Your task to perform on an android device: Go to ESPN.com Image 0: 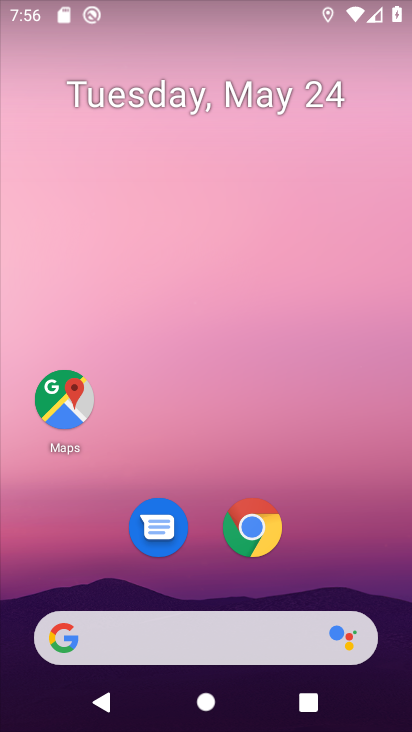
Step 0: click (244, 524)
Your task to perform on an android device: Go to ESPN.com Image 1: 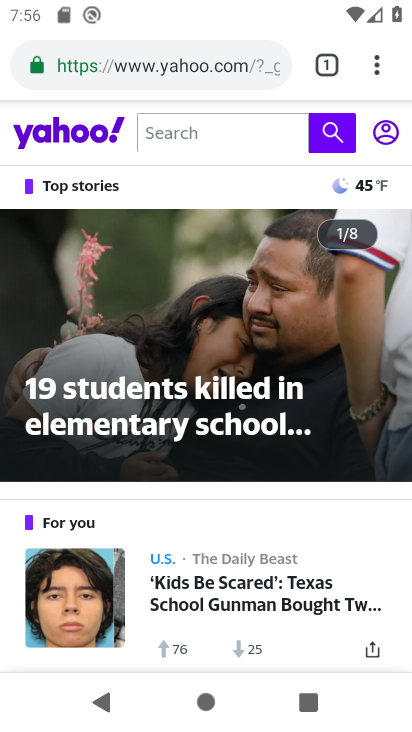
Step 1: drag from (314, 439) to (18, 417)
Your task to perform on an android device: Go to ESPN.com Image 2: 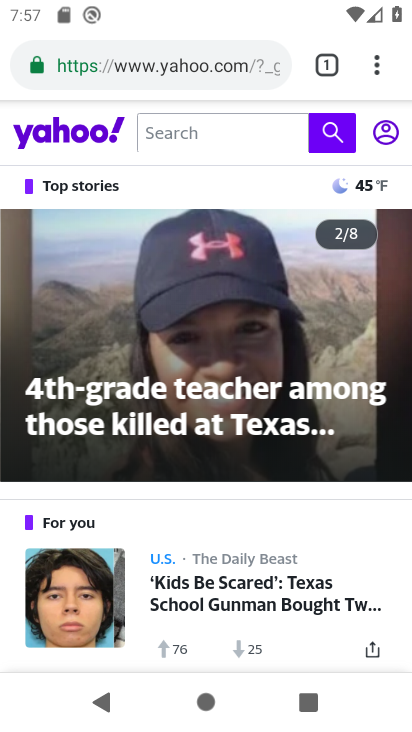
Step 2: drag from (316, 323) to (116, 307)
Your task to perform on an android device: Go to ESPN.com Image 3: 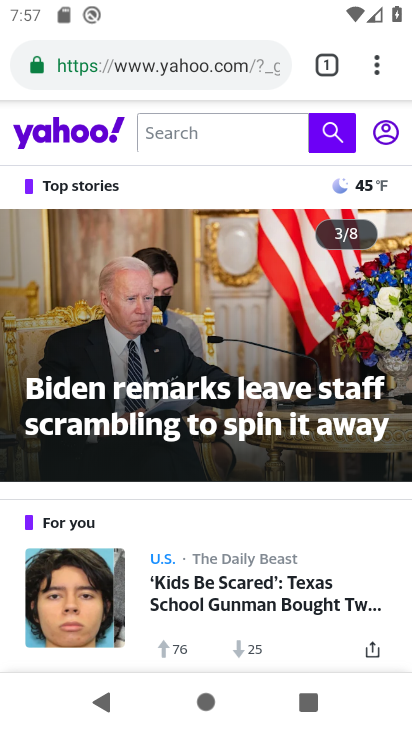
Step 3: drag from (325, 322) to (97, 332)
Your task to perform on an android device: Go to ESPN.com Image 4: 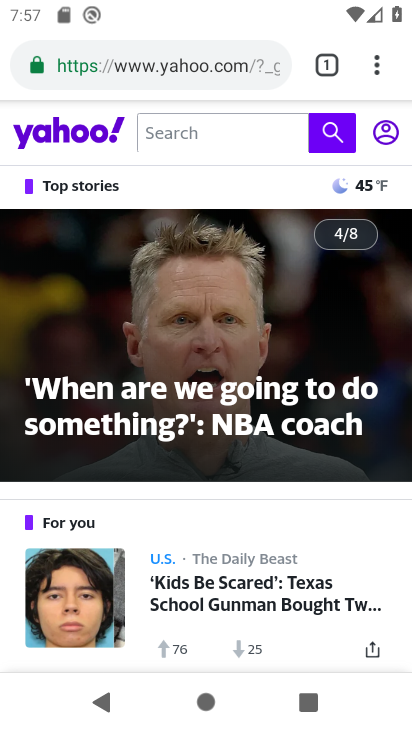
Step 4: drag from (311, 323) to (91, 325)
Your task to perform on an android device: Go to ESPN.com Image 5: 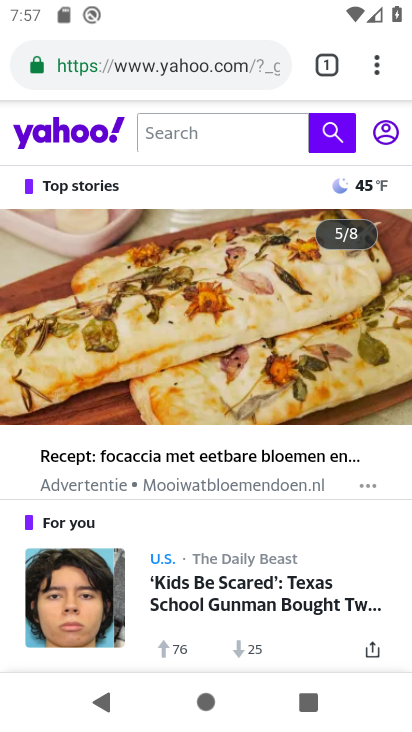
Step 5: click (380, 67)
Your task to perform on an android device: Go to ESPN.com Image 6: 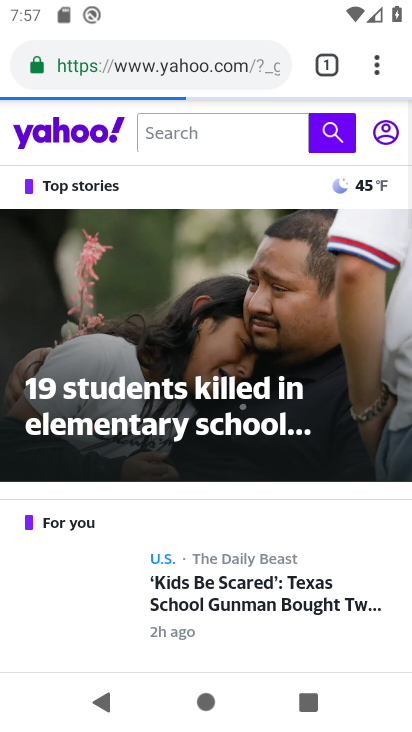
Step 6: drag from (364, 333) to (269, 315)
Your task to perform on an android device: Go to ESPN.com Image 7: 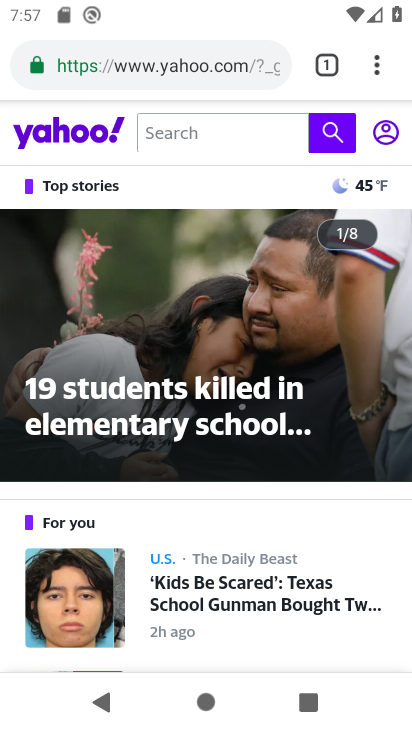
Step 7: drag from (381, 68) to (49, 63)
Your task to perform on an android device: Go to ESPN.com Image 8: 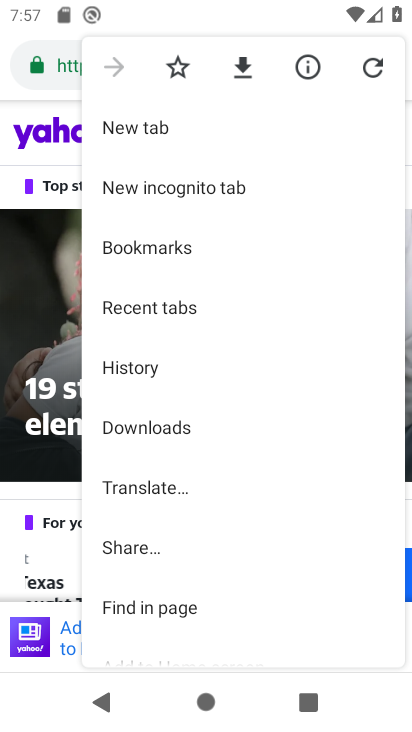
Step 8: click (49, 63)
Your task to perform on an android device: Go to ESPN.com Image 9: 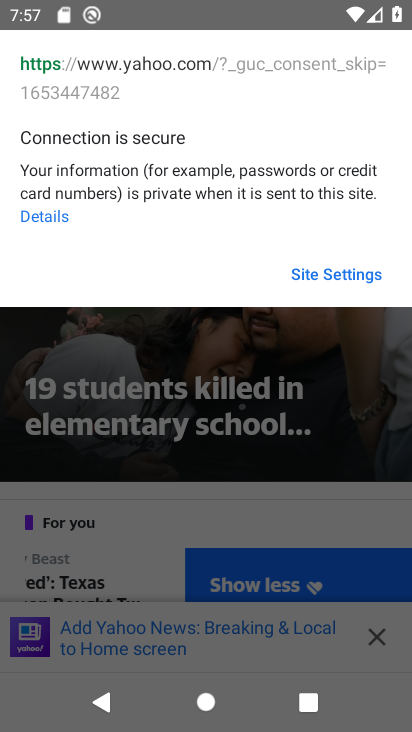
Step 9: click (133, 67)
Your task to perform on an android device: Go to ESPN.com Image 10: 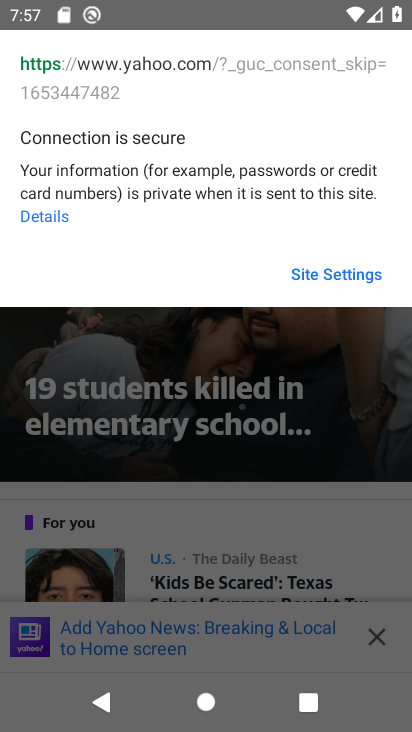
Step 10: click (216, 64)
Your task to perform on an android device: Go to ESPN.com Image 11: 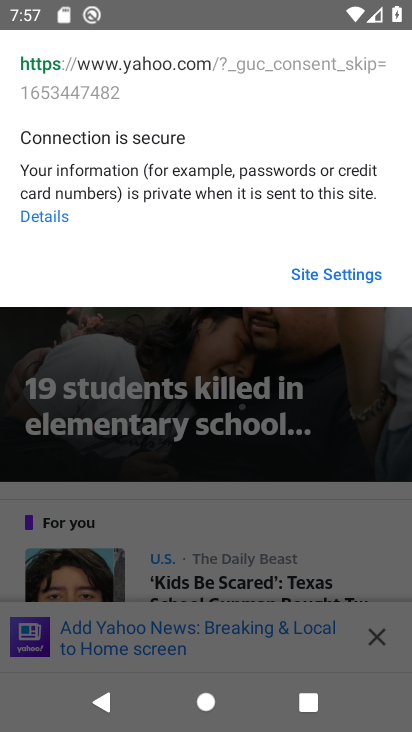
Step 11: click (272, 502)
Your task to perform on an android device: Go to ESPN.com Image 12: 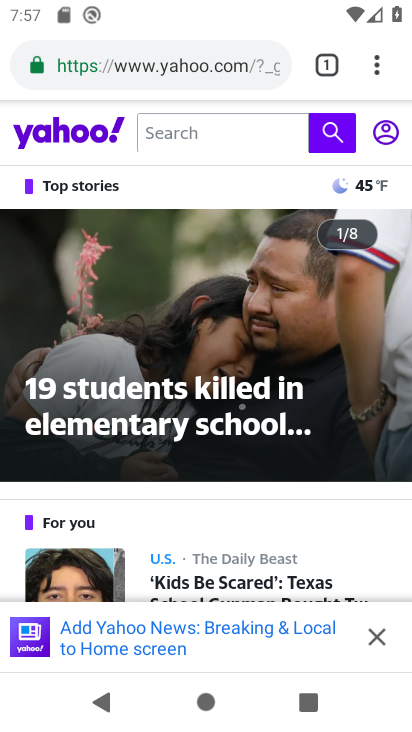
Step 12: click (229, 71)
Your task to perform on an android device: Go to ESPN.com Image 13: 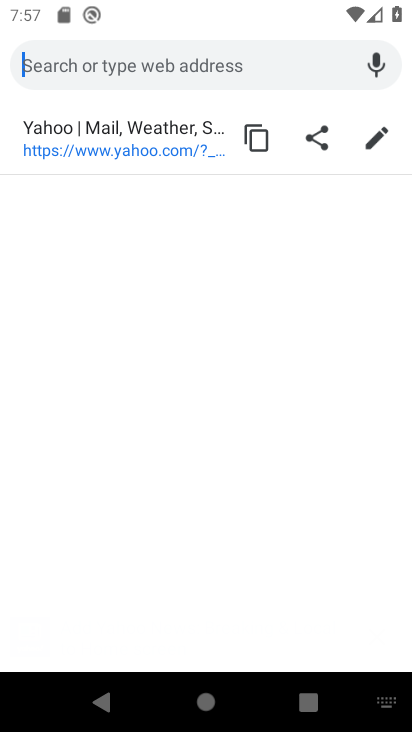
Step 13: type "espn.com"
Your task to perform on an android device: Go to ESPN.com Image 14: 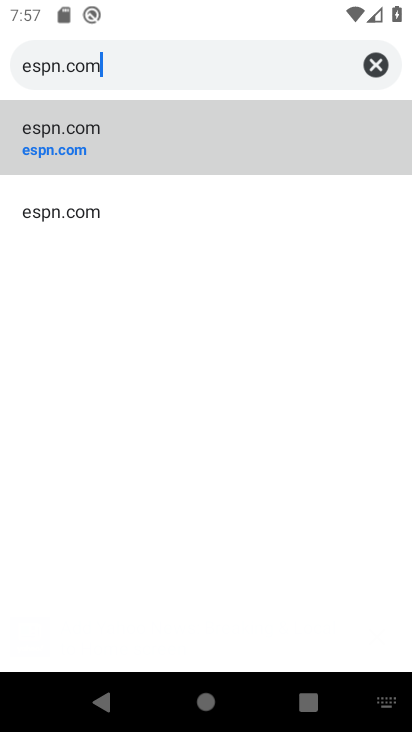
Step 14: click (29, 154)
Your task to perform on an android device: Go to ESPN.com Image 15: 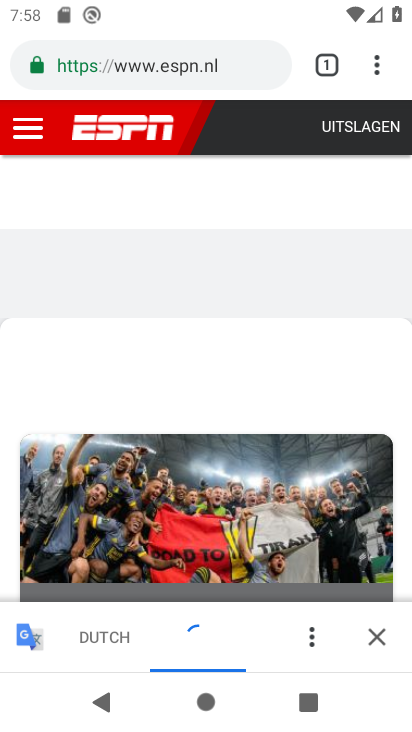
Step 15: task complete